Your task to perform on an android device: turn smart compose on in the gmail app Image 0: 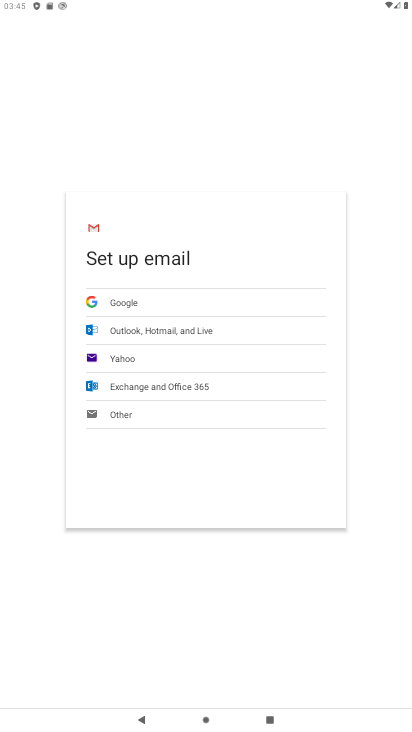
Step 0: press home button
Your task to perform on an android device: turn smart compose on in the gmail app Image 1: 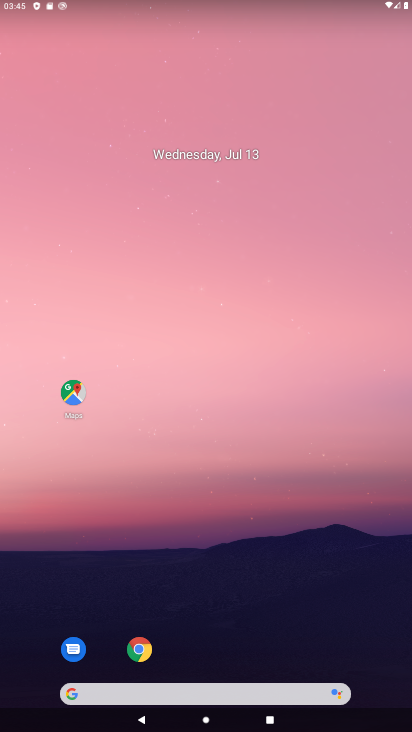
Step 1: drag from (227, 689) to (247, 177)
Your task to perform on an android device: turn smart compose on in the gmail app Image 2: 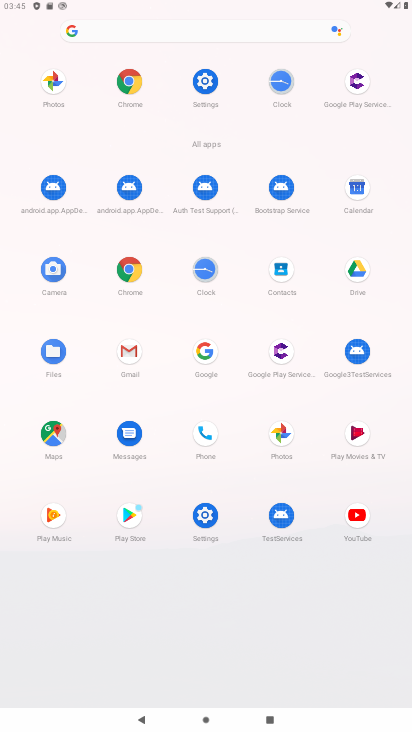
Step 2: click (124, 352)
Your task to perform on an android device: turn smart compose on in the gmail app Image 3: 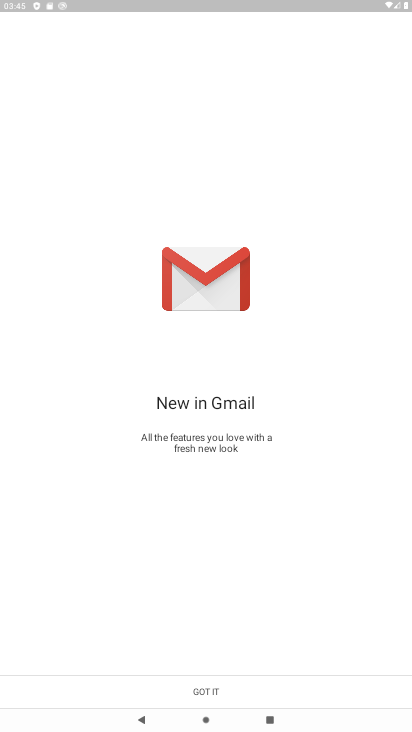
Step 3: click (215, 692)
Your task to perform on an android device: turn smart compose on in the gmail app Image 4: 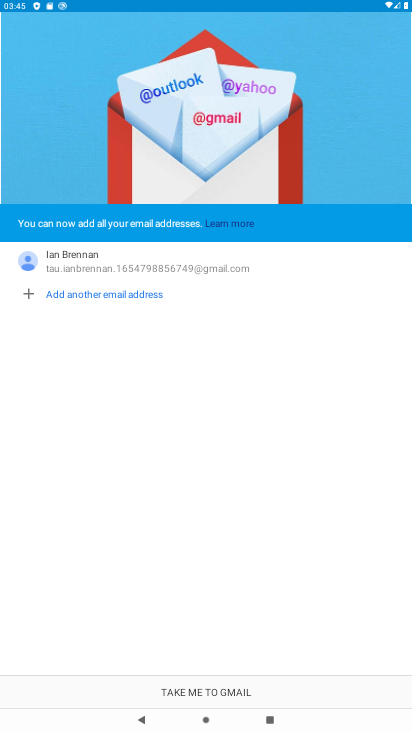
Step 4: click (194, 683)
Your task to perform on an android device: turn smart compose on in the gmail app Image 5: 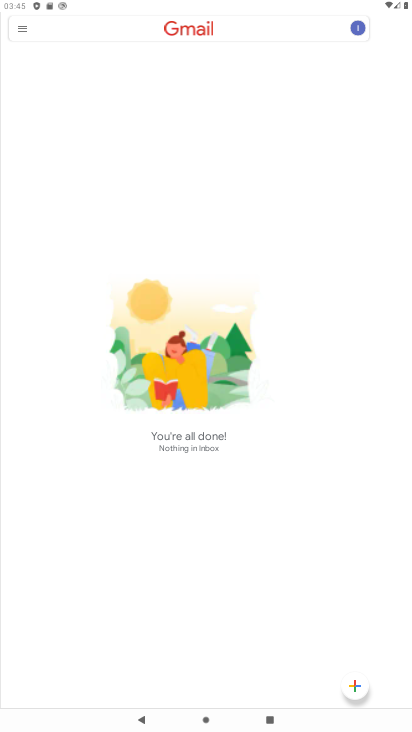
Step 5: click (24, 30)
Your task to perform on an android device: turn smart compose on in the gmail app Image 6: 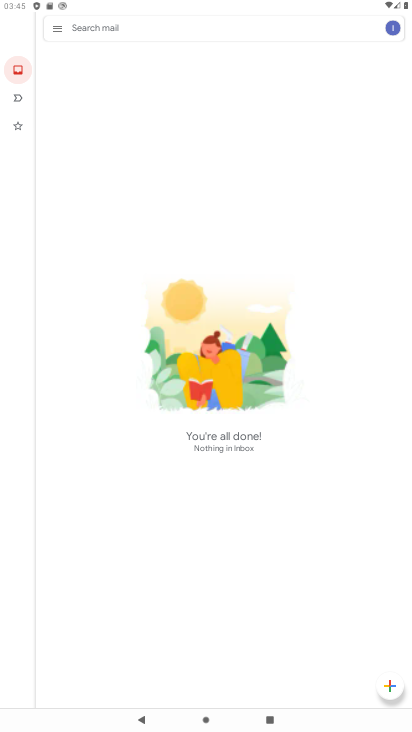
Step 6: click (52, 26)
Your task to perform on an android device: turn smart compose on in the gmail app Image 7: 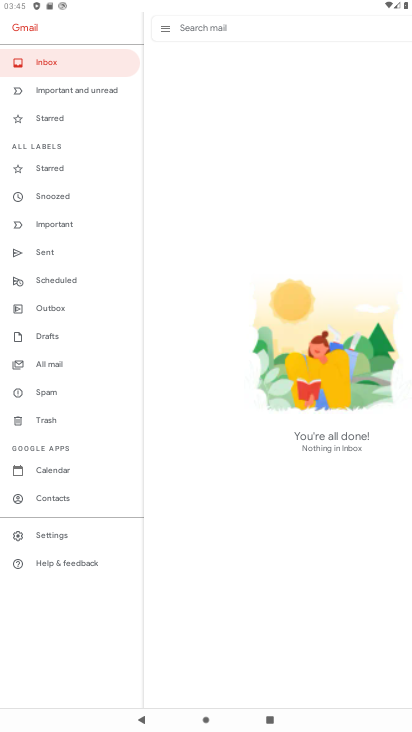
Step 7: click (50, 537)
Your task to perform on an android device: turn smart compose on in the gmail app Image 8: 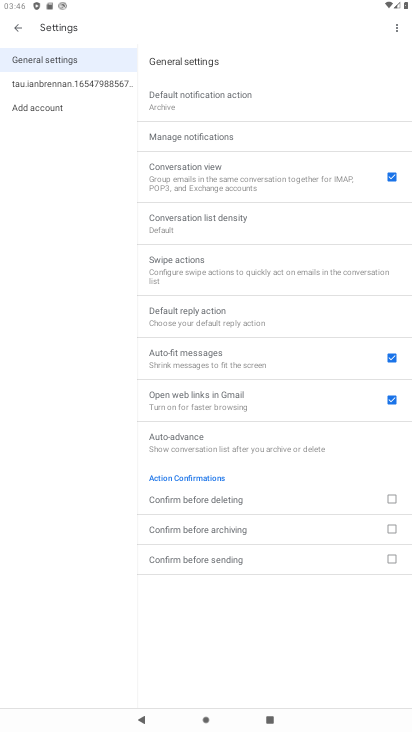
Step 8: click (113, 80)
Your task to perform on an android device: turn smart compose on in the gmail app Image 9: 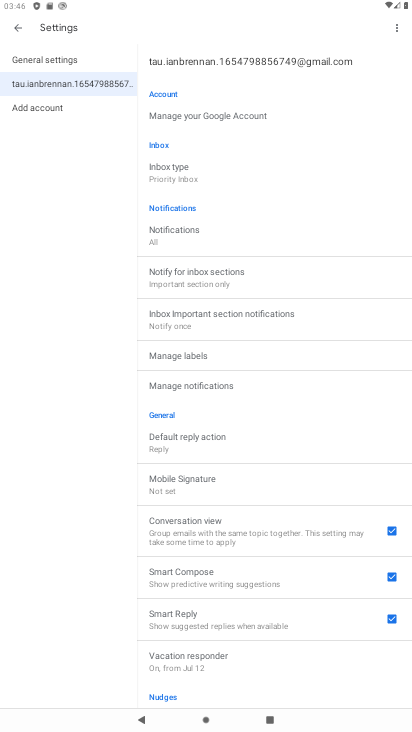
Step 9: task complete